Your task to perform on an android device: delete location history Image 0: 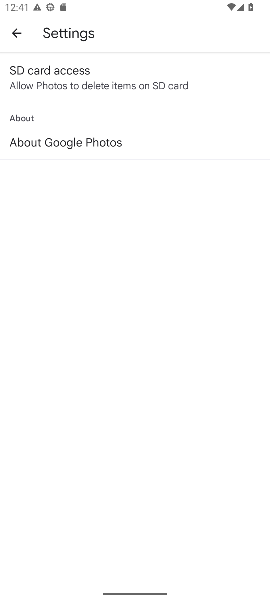
Step 0: press back button
Your task to perform on an android device: delete location history Image 1: 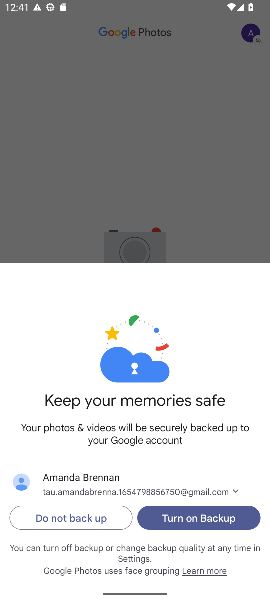
Step 1: press home button
Your task to perform on an android device: delete location history Image 2: 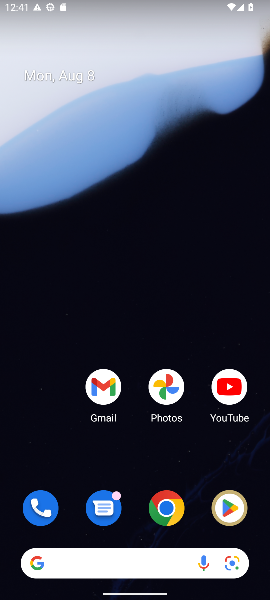
Step 2: drag from (127, 124) to (127, 96)
Your task to perform on an android device: delete location history Image 3: 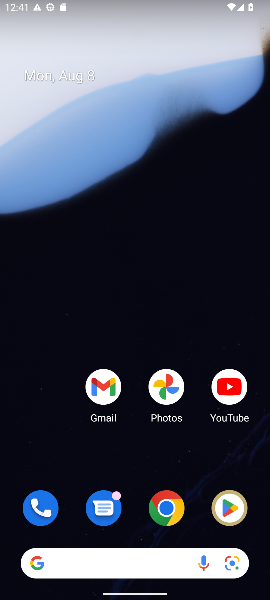
Step 3: drag from (135, 465) to (136, 238)
Your task to perform on an android device: delete location history Image 4: 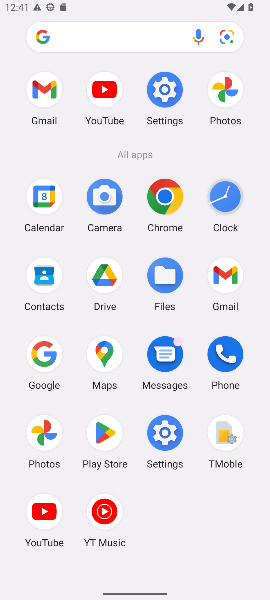
Step 4: click (160, 431)
Your task to perform on an android device: delete location history Image 5: 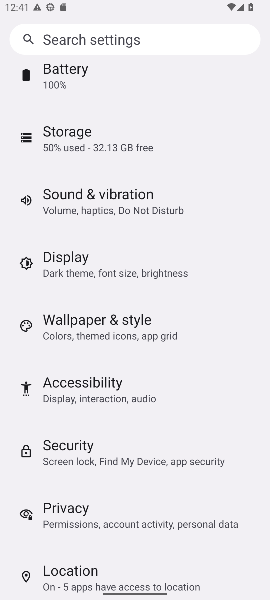
Step 5: click (51, 569)
Your task to perform on an android device: delete location history Image 6: 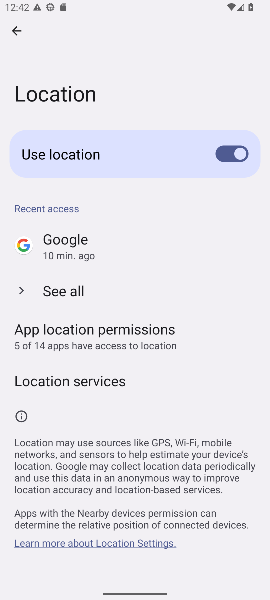
Step 6: drag from (121, 387) to (113, 203)
Your task to perform on an android device: delete location history Image 7: 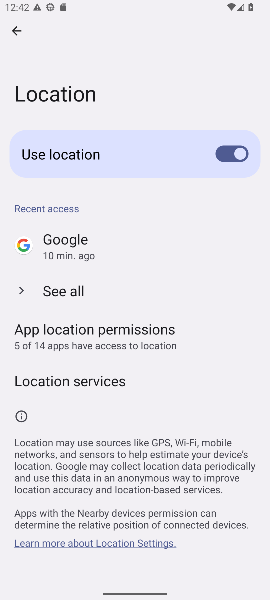
Step 7: click (75, 381)
Your task to perform on an android device: delete location history Image 8: 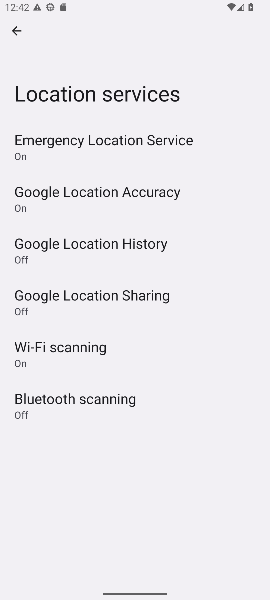
Step 8: click (89, 245)
Your task to perform on an android device: delete location history Image 9: 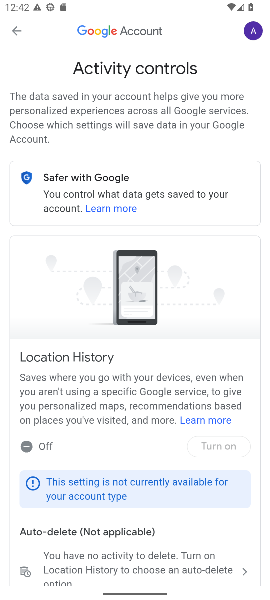
Step 9: drag from (114, 371) to (119, 176)
Your task to perform on an android device: delete location history Image 10: 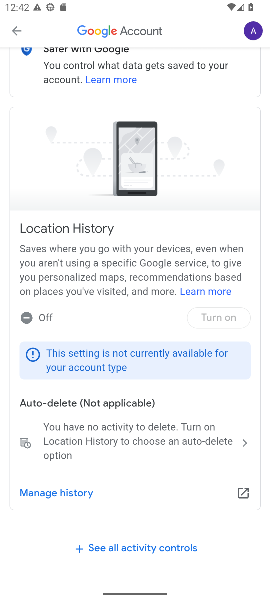
Step 10: click (74, 495)
Your task to perform on an android device: delete location history Image 11: 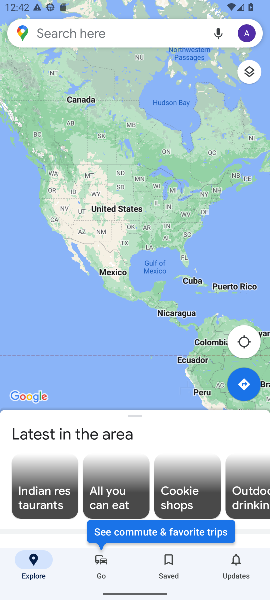
Step 11: click (167, 570)
Your task to perform on an android device: delete location history Image 12: 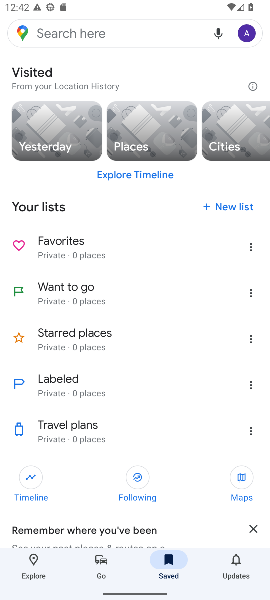
Step 12: click (36, 492)
Your task to perform on an android device: delete location history Image 13: 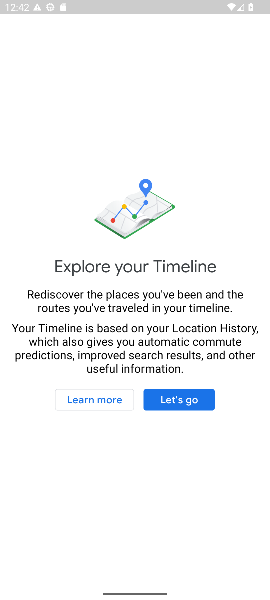
Step 13: click (163, 395)
Your task to perform on an android device: delete location history Image 14: 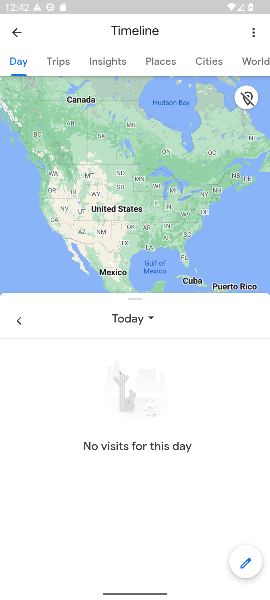
Step 14: click (249, 35)
Your task to perform on an android device: delete location history Image 15: 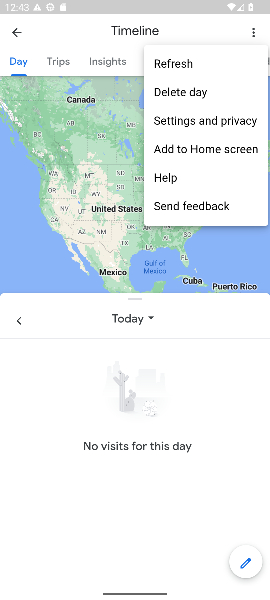
Step 15: click (192, 122)
Your task to perform on an android device: delete location history Image 16: 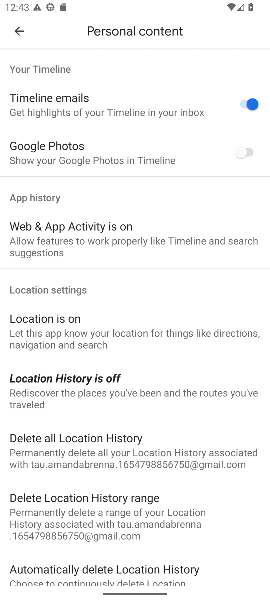
Step 16: click (71, 459)
Your task to perform on an android device: delete location history Image 17: 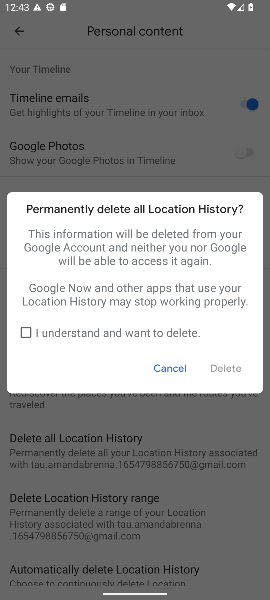
Step 17: click (22, 332)
Your task to perform on an android device: delete location history Image 18: 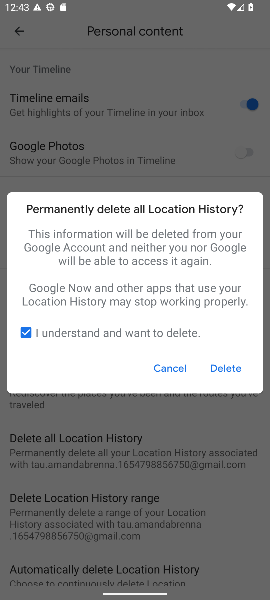
Step 18: click (232, 369)
Your task to perform on an android device: delete location history Image 19: 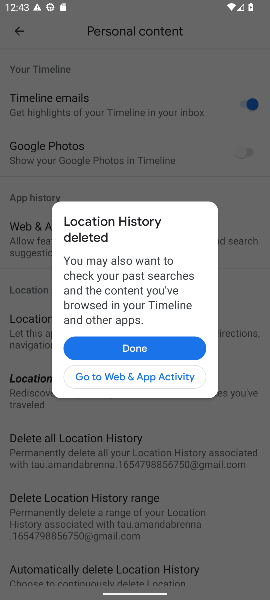
Step 19: click (134, 336)
Your task to perform on an android device: delete location history Image 20: 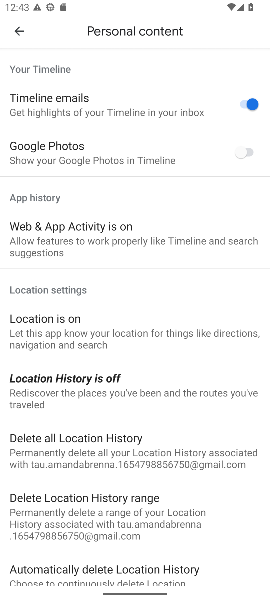
Step 20: task complete